Your task to perform on an android device: Open Android settings Image 0: 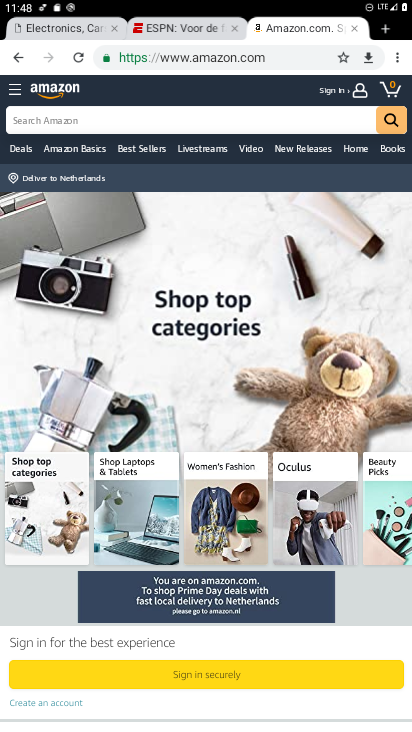
Step 0: drag from (367, 645) to (312, 177)
Your task to perform on an android device: Open Android settings Image 1: 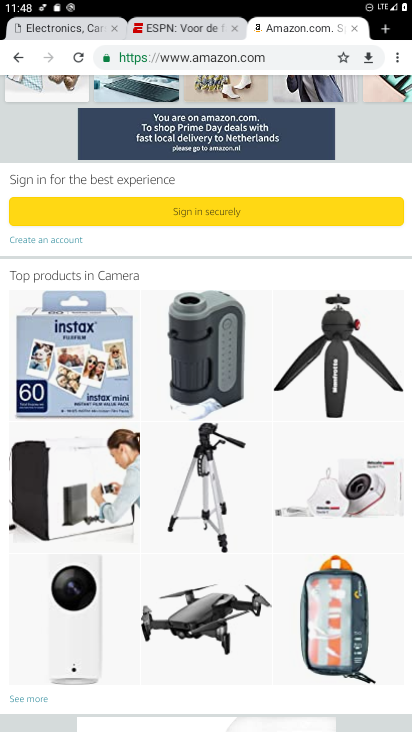
Step 1: press home button
Your task to perform on an android device: Open Android settings Image 2: 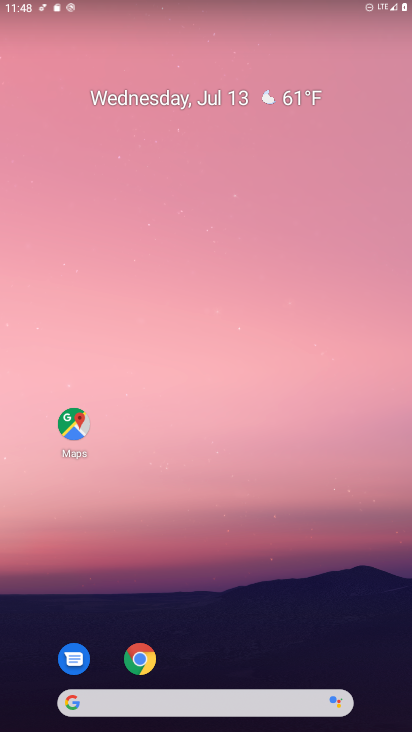
Step 2: drag from (361, 651) to (325, 209)
Your task to perform on an android device: Open Android settings Image 3: 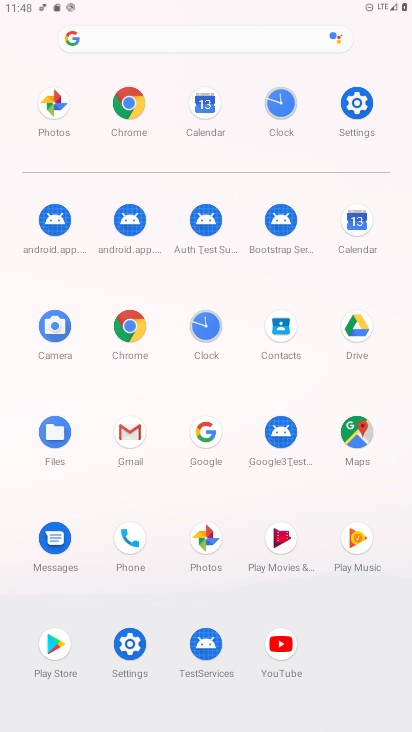
Step 3: click (129, 644)
Your task to perform on an android device: Open Android settings Image 4: 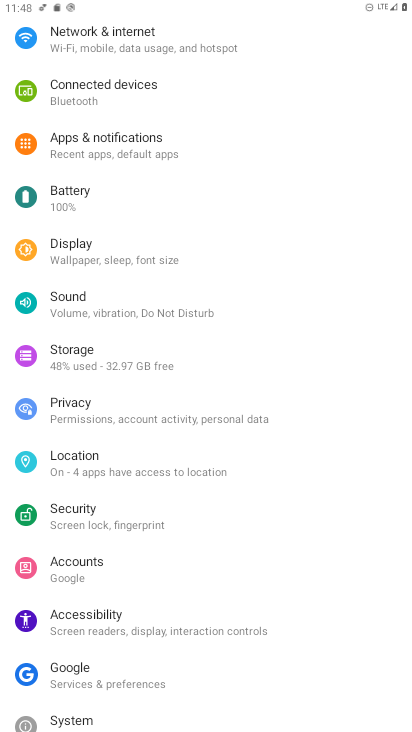
Step 4: drag from (280, 650) to (288, 223)
Your task to perform on an android device: Open Android settings Image 5: 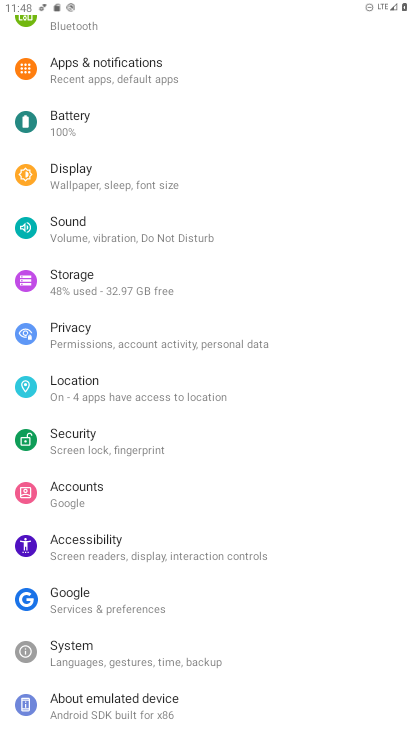
Step 5: click (66, 703)
Your task to perform on an android device: Open Android settings Image 6: 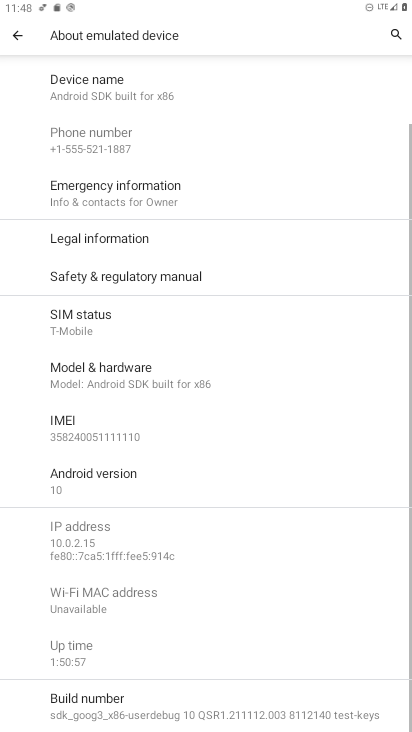
Step 6: task complete